Your task to perform on an android device: turn on sleep mode Image 0: 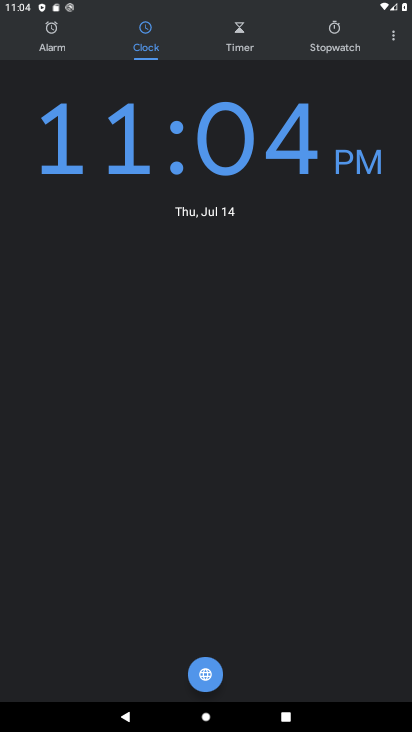
Step 0: press home button
Your task to perform on an android device: turn on sleep mode Image 1: 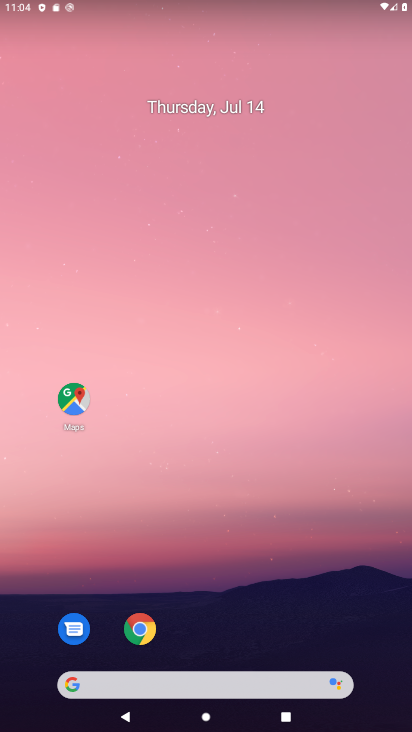
Step 1: drag from (210, 625) to (132, 14)
Your task to perform on an android device: turn on sleep mode Image 2: 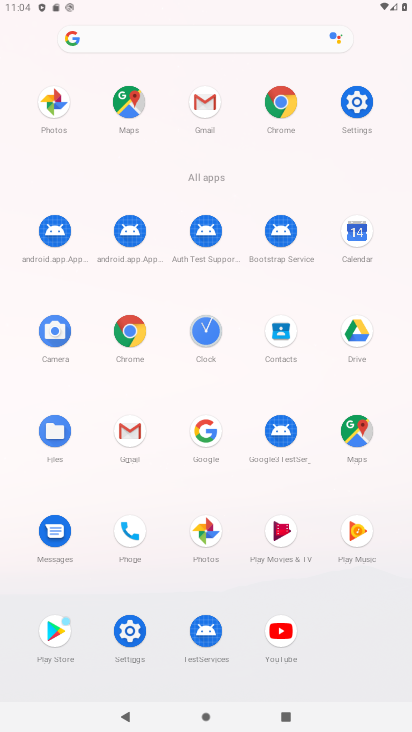
Step 2: click (126, 637)
Your task to perform on an android device: turn on sleep mode Image 3: 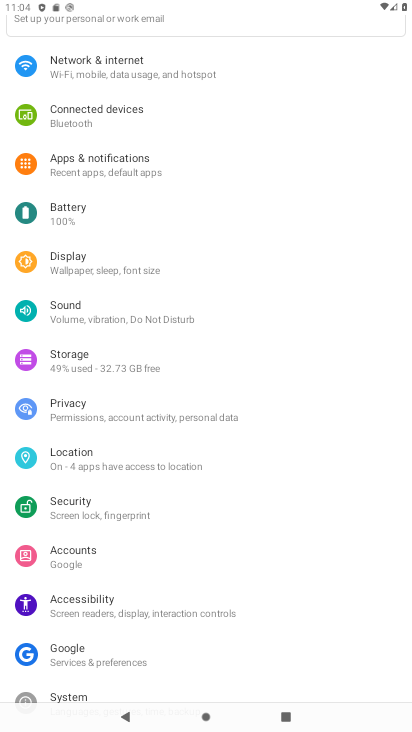
Step 3: drag from (220, 168) to (211, 729)
Your task to perform on an android device: turn on sleep mode Image 4: 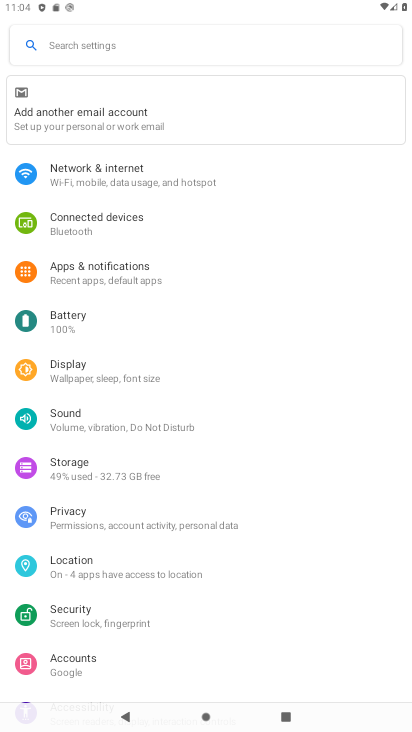
Step 4: click (256, 29)
Your task to perform on an android device: turn on sleep mode Image 5: 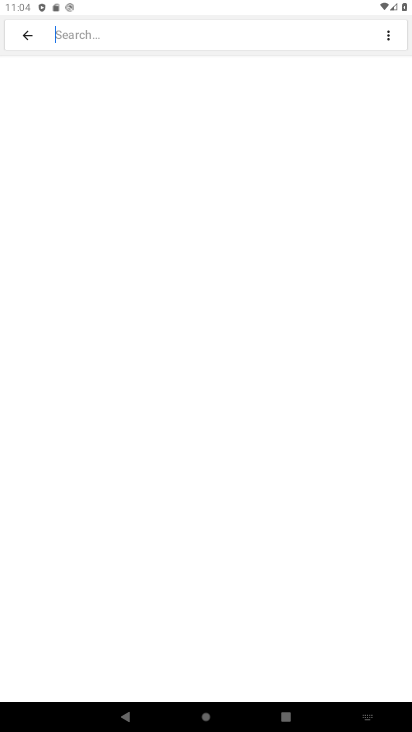
Step 5: type "sleep mode"
Your task to perform on an android device: turn on sleep mode Image 6: 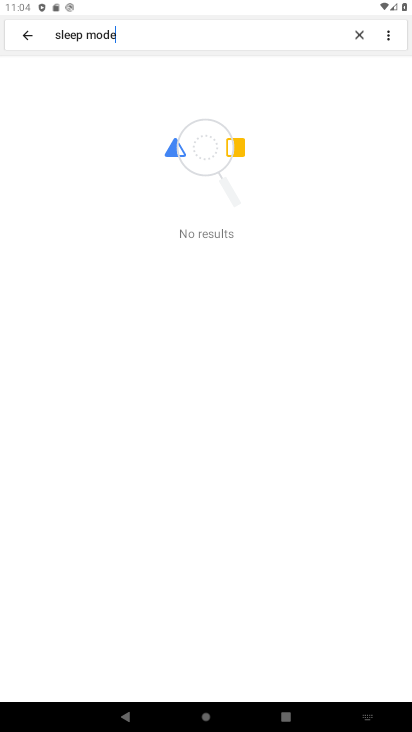
Step 6: task complete